Your task to perform on an android device: Open Wikipedia Image 0: 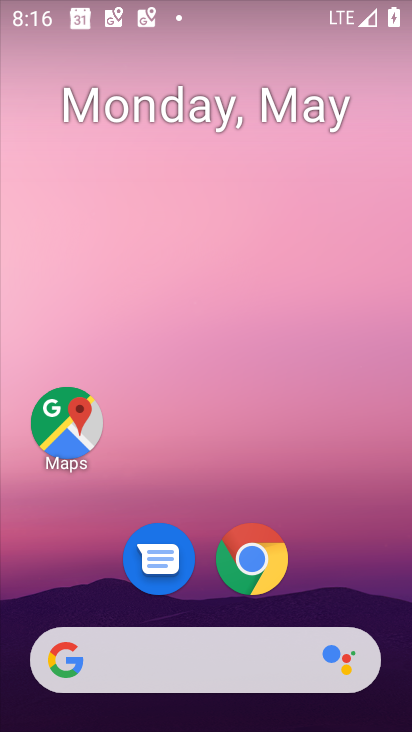
Step 0: drag from (393, 648) to (330, 102)
Your task to perform on an android device: Open Wikipedia Image 1: 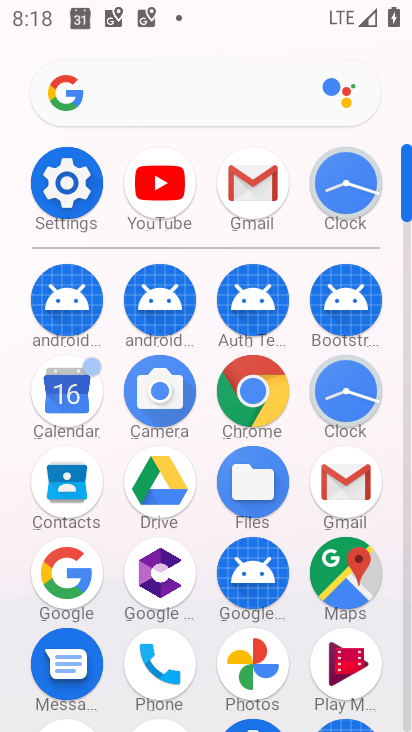
Step 1: click (250, 410)
Your task to perform on an android device: Open Wikipedia Image 2: 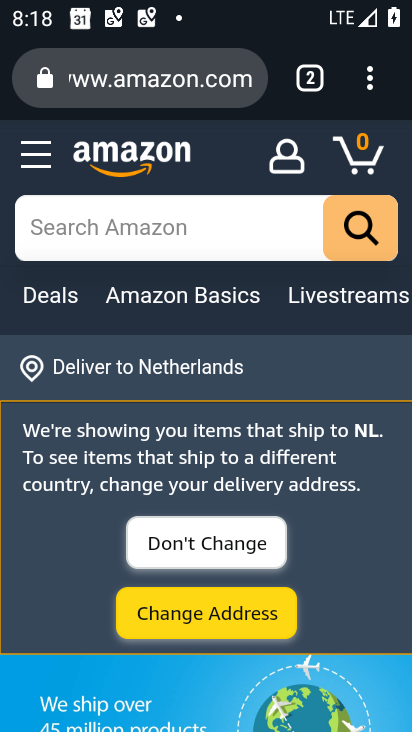
Step 2: press back button
Your task to perform on an android device: Open Wikipedia Image 3: 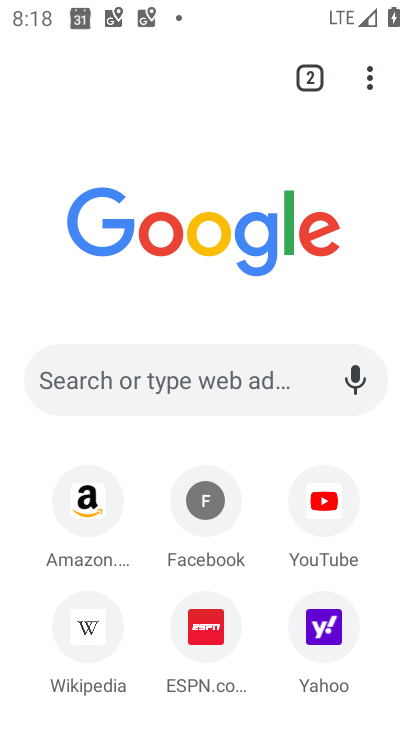
Step 3: click (97, 633)
Your task to perform on an android device: Open Wikipedia Image 4: 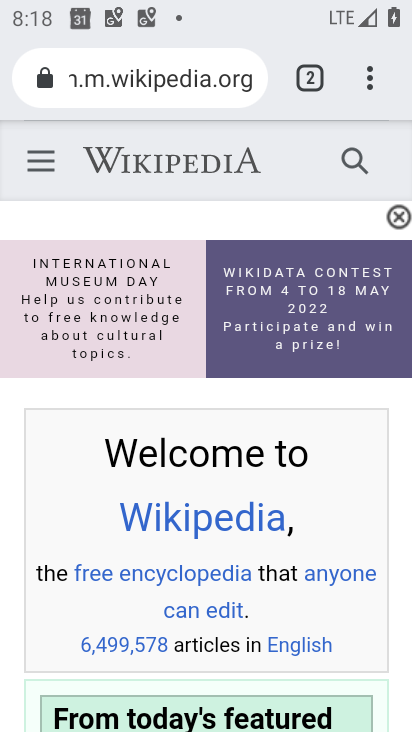
Step 4: task complete